Your task to perform on an android device: When is my next meeting? Image 0: 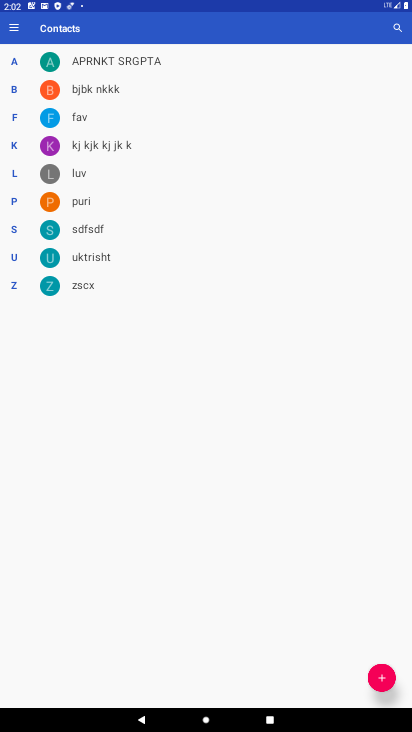
Step 0: press home button
Your task to perform on an android device: When is my next meeting? Image 1: 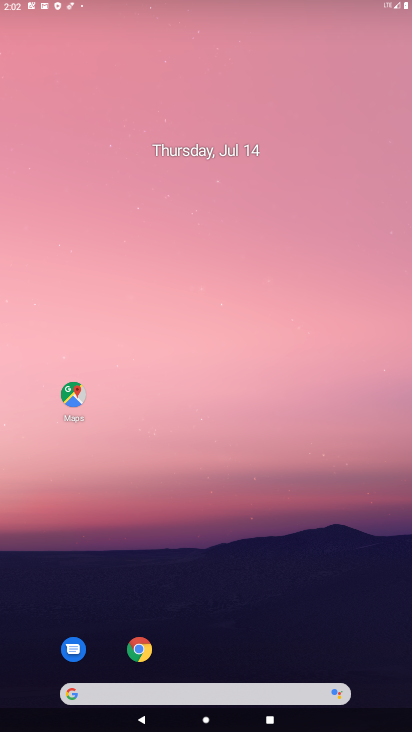
Step 1: drag from (390, 656) to (259, 58)
Your task to perform on an android device: When is my next meeting? Image 2: 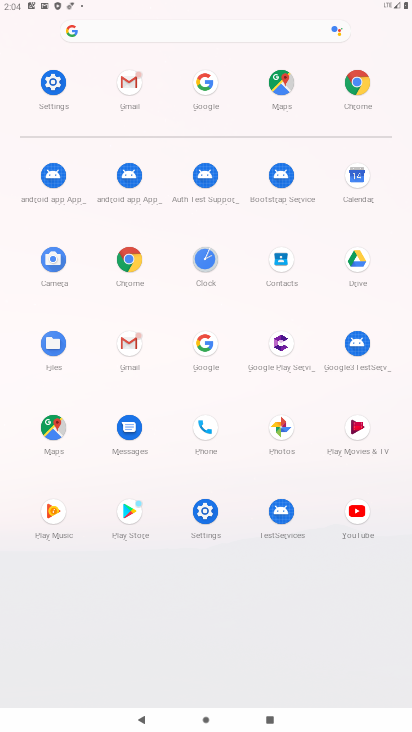
Step 2: click (357, 190)
Your task to perform on an android device: When is my next meeting? Image 3: 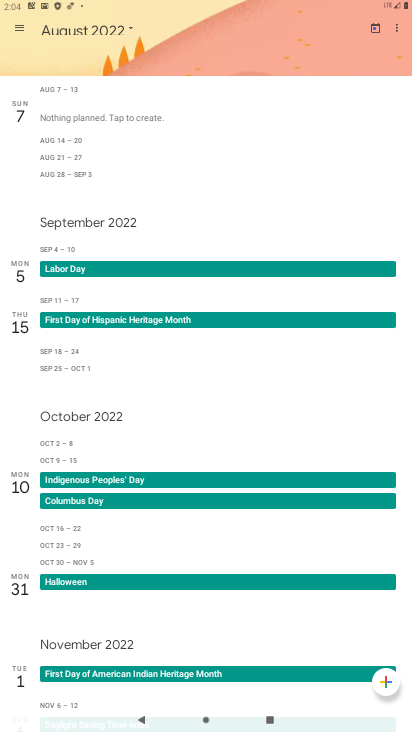
Step 3: task complete